Your task to perform on an android device: turn on sleep mode Image 0: 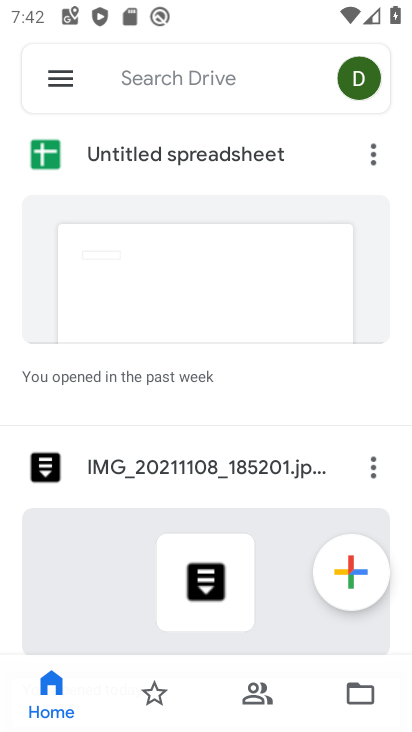
Step 0: press home button
Your task to perform on an android device: turn on sleep mode Image 1: 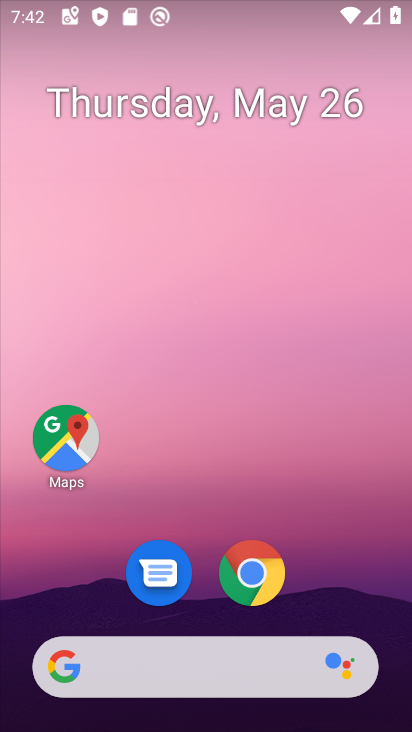
Step 1: drag from (197, 623) to (95, 73)
Your task to perform on an android device: turn on sleep mode Image 2: 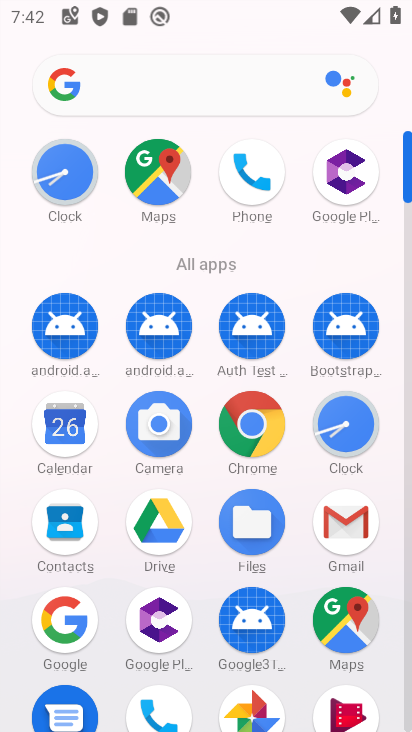
Step 2: drag from (124, 634) to (87, 195)
Your task to perform on an android device: turn on sleep mode Image 3: 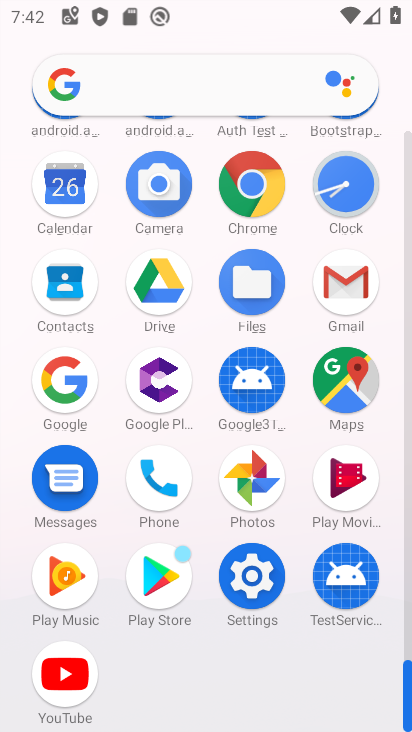
Step 3: click (266, 601)
Your task to perform on an android device: turn on sleep mode Image 4: 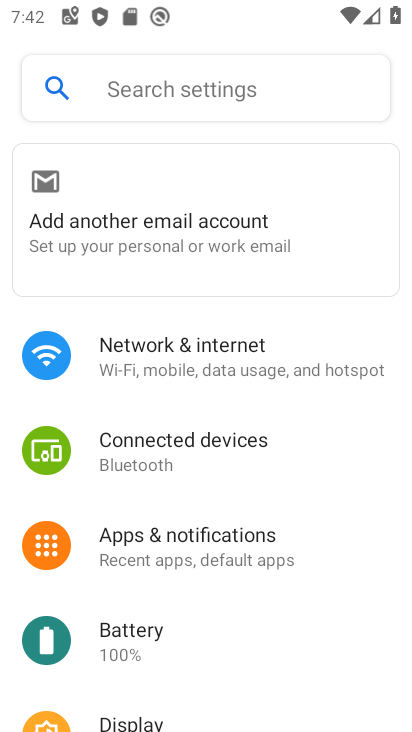
Step 4: drag from (266, 601) to (226, 205)
Your task to perform on an android device: turn on sleep mode Image 5: 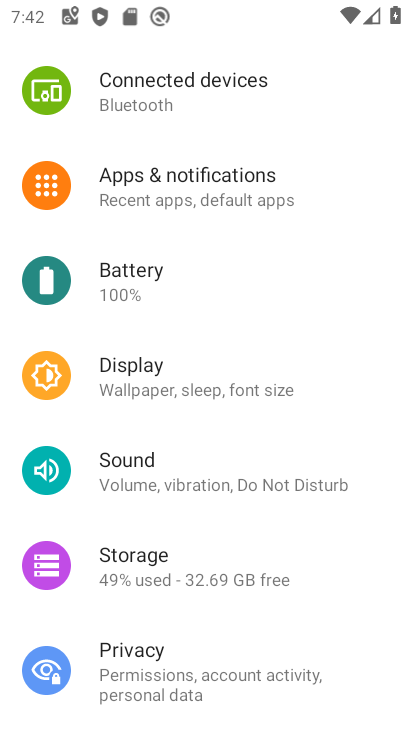
Step 5: click (162, 355)
Your task to perform on an android device: turn on sleep mode Image 6: 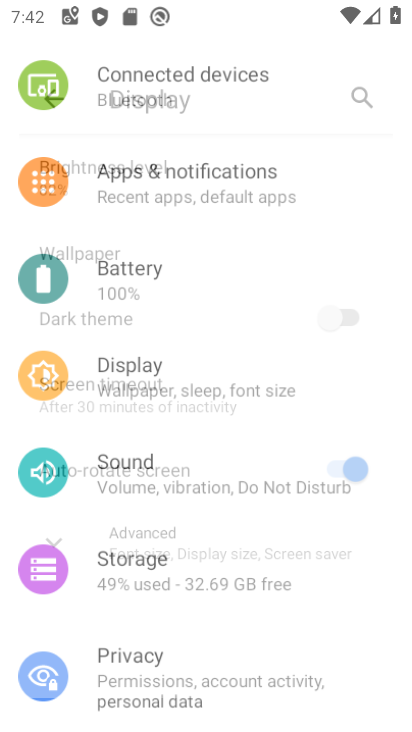
Step 6: task complete